Your task to perform on an android device: turn on data saver in the chrome app Image 0: 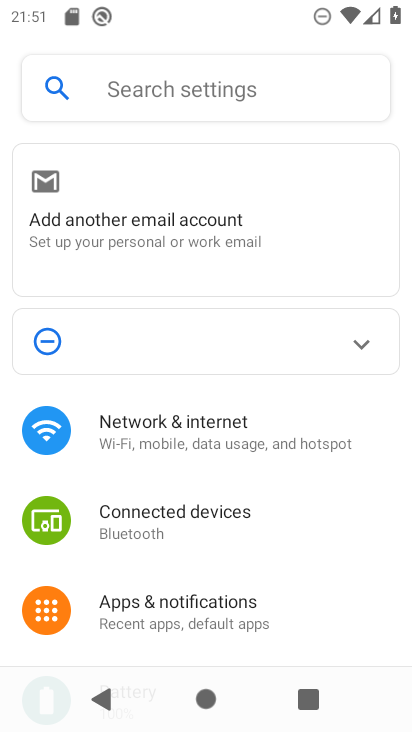
Step 0: press home button
Your task to perform on an android device: turn on data saver in the chrome app Image 1: 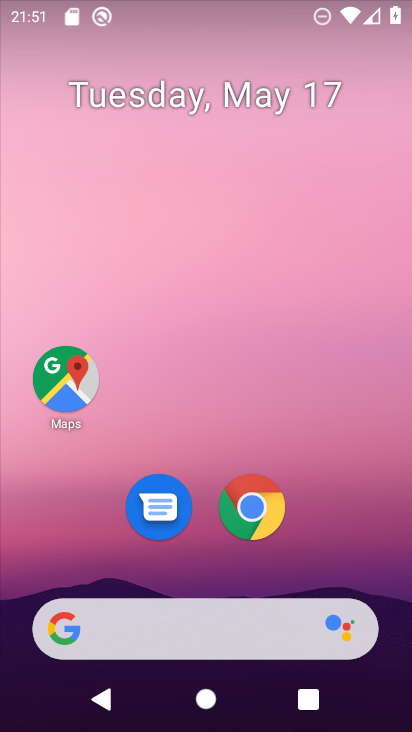
Step 1: click (258, 512)
Your task to perform on an android device: turn on data saver in the chrome app Image 2: 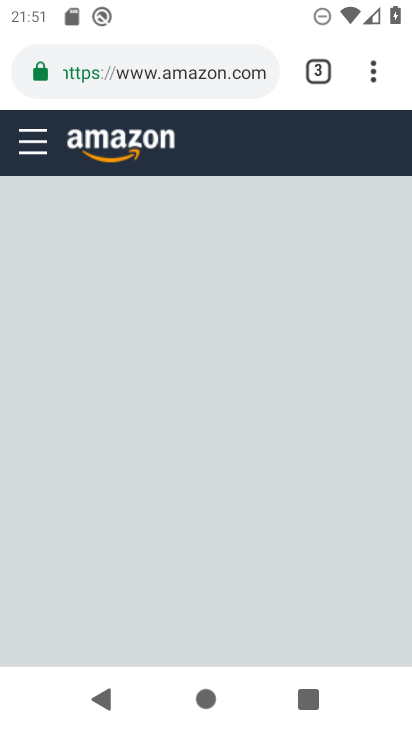
Step 2: click (373, 73)
Your task to perform on an android device: turn on data saver in the chrome app Image 3: 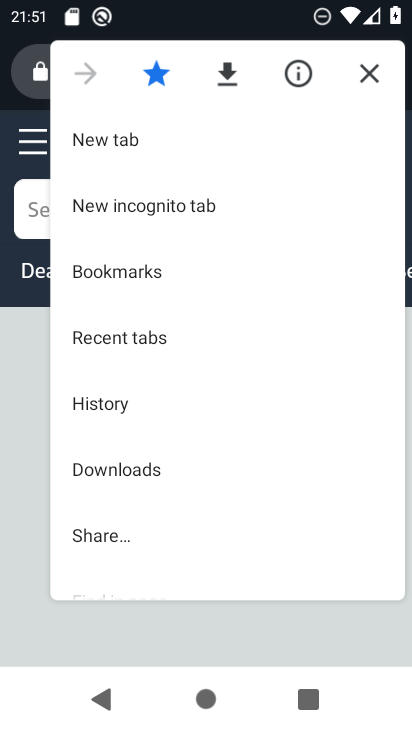
Step 3: drag from (219, 426) to (229, 96)
Your task to perform on an android device: turn on data saver in the chrome app Image 4: 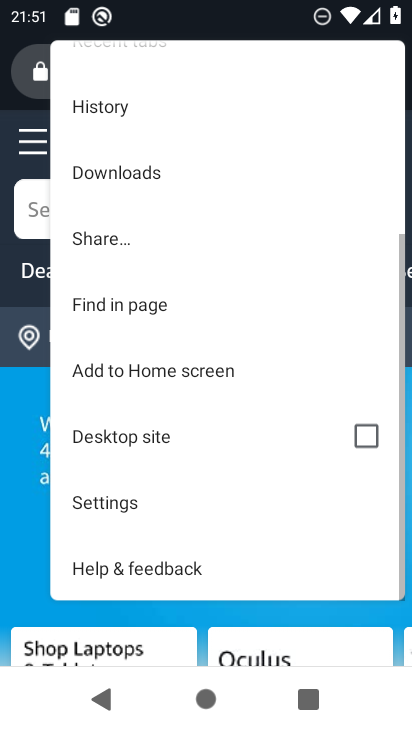
Step 4: drag from (226, 449) to (225, 180)
Your task to perform on an android device: turn on data saver in the chrome app Image 5: 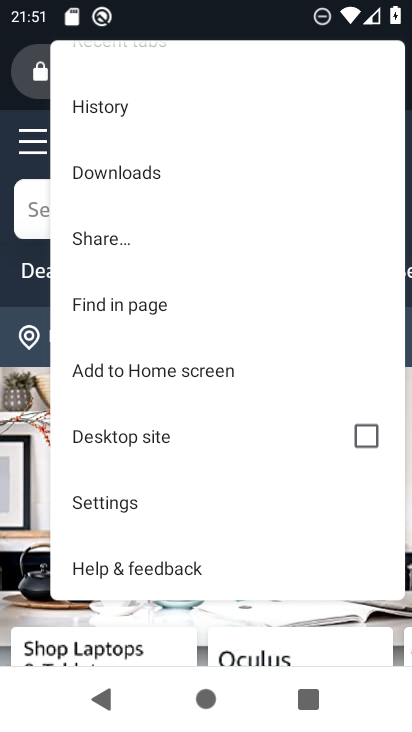
Step 5: click (97, 504)
Your task to perform on an android device: turn on data saver in the chrome app Image 6: 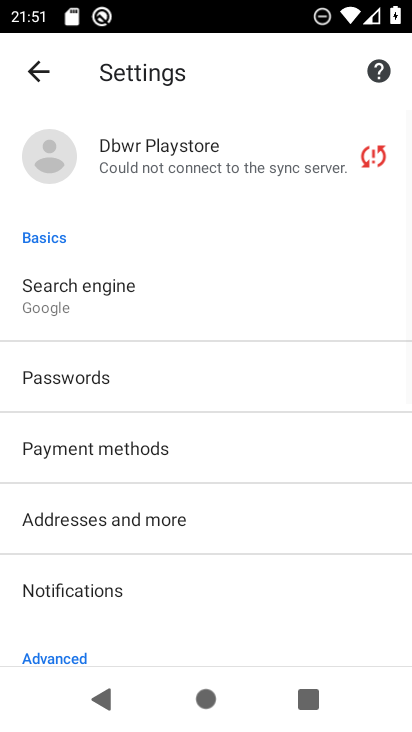
Step 6: drag from (132, 529) to (139, 243)
Your task to perform on an android device: turn on data saver in the chrome app Image 7: 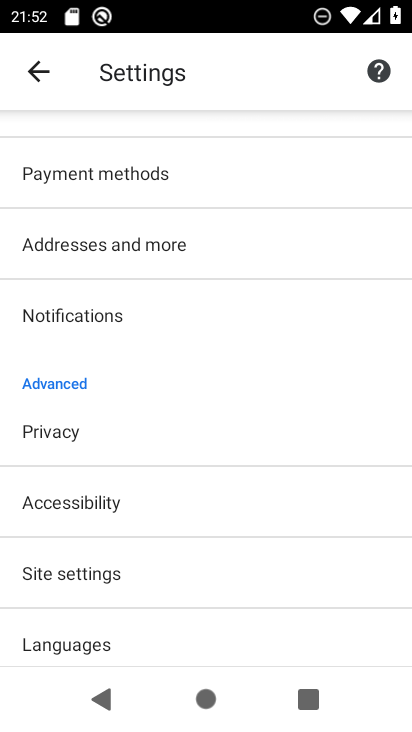
Step 7: drag from (202, 576) to (207, 334)
Your task to perform on an android device: turn on data saver in the chrome app Image 8: 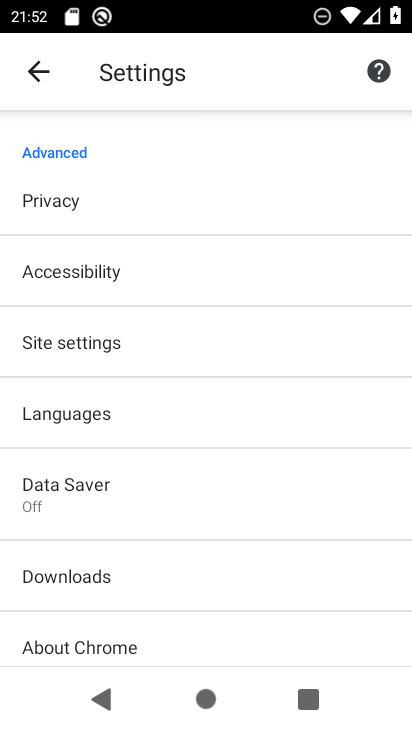
Step 8: click (96, 484)
Your task to perform on an android device: turn on data saver in the chrome app Image 9: 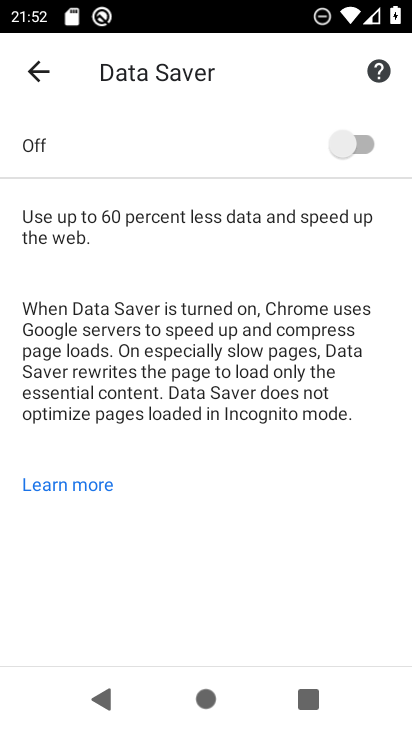
Step 9: click (341, 149)
Your task to perform on an android device: turn on data saver in the chrome app Image 10: 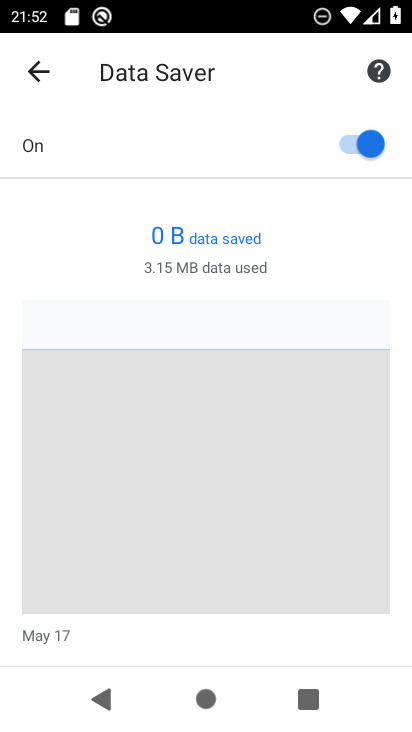
Step 10: task complete